Your task to perform on an android device: Open a new private window in the chrome app Image 0: 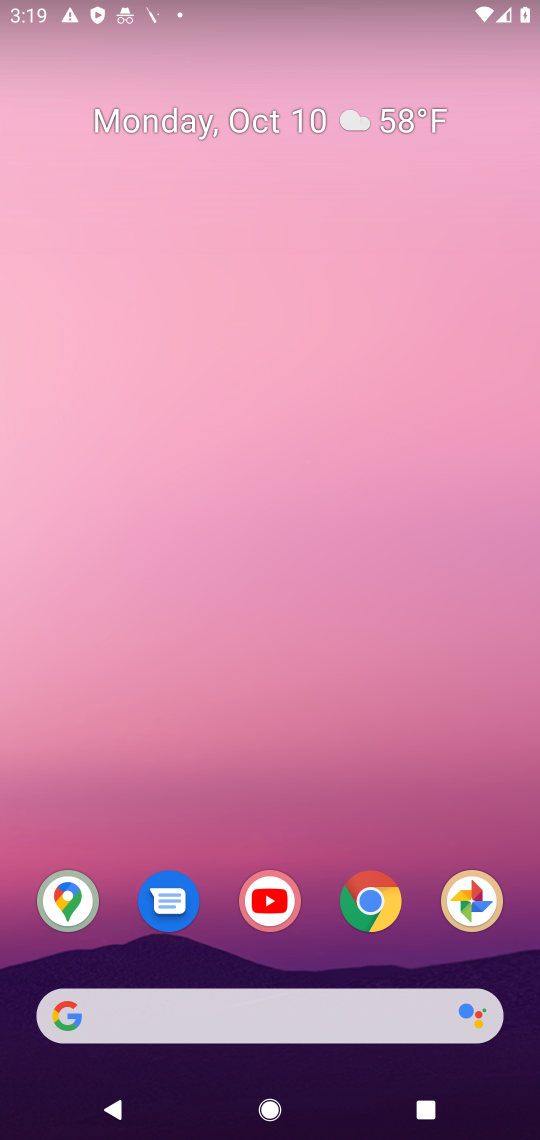
Step 0: drag from (322, 922) to (373, 386)
Your task to perform on an android device: Open a new private window in the chrome app Image 1: 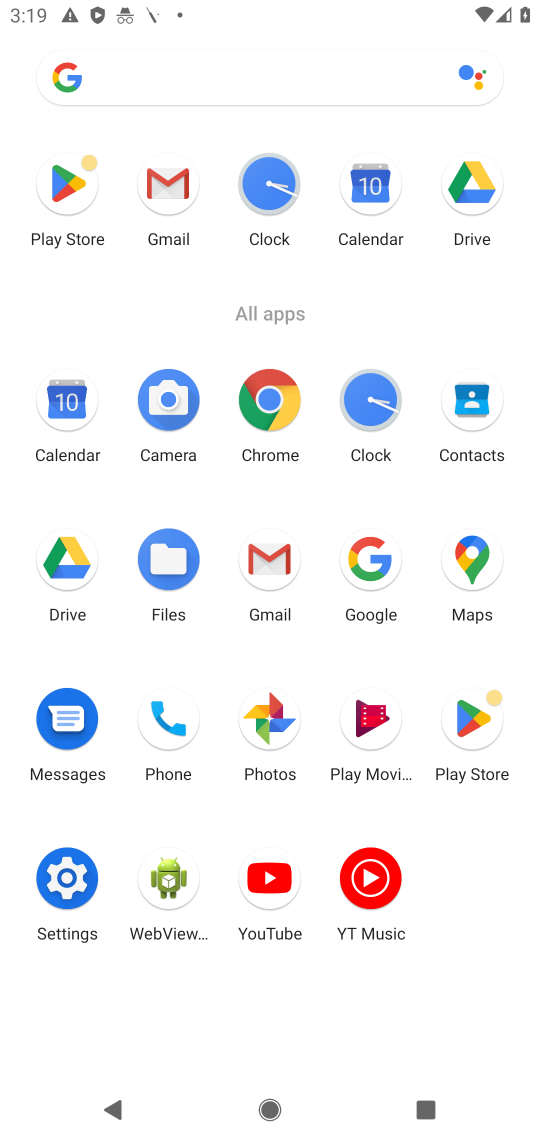
Step 1: click (277, 460)
Your task to perform on an android device: Open a new private window in the chrome app Image 2: 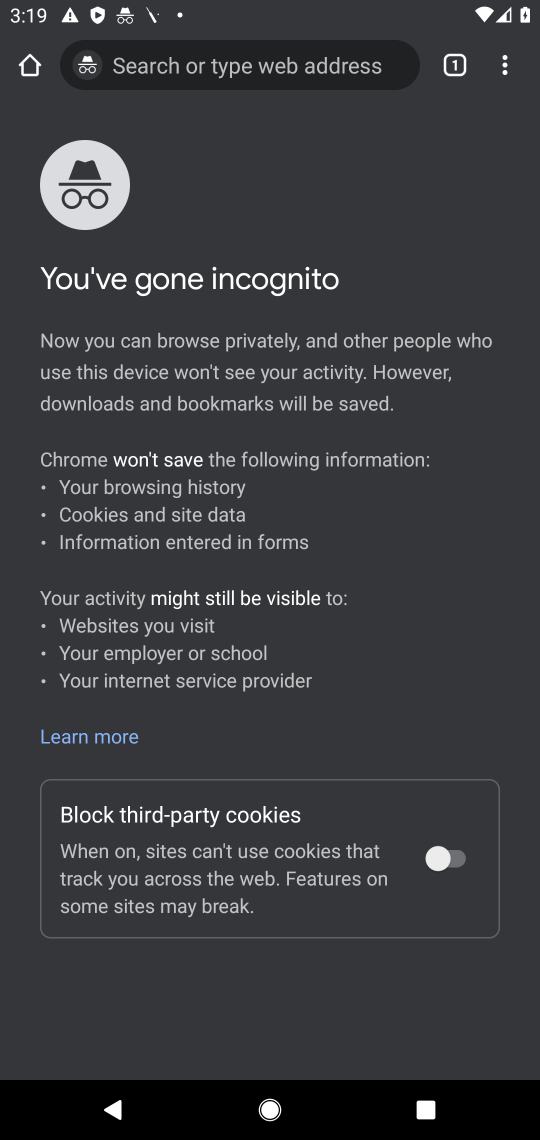
Step 2: click (509, 67)
Your task to perform on an android device: Open a new private window in the chrome app Image 3: 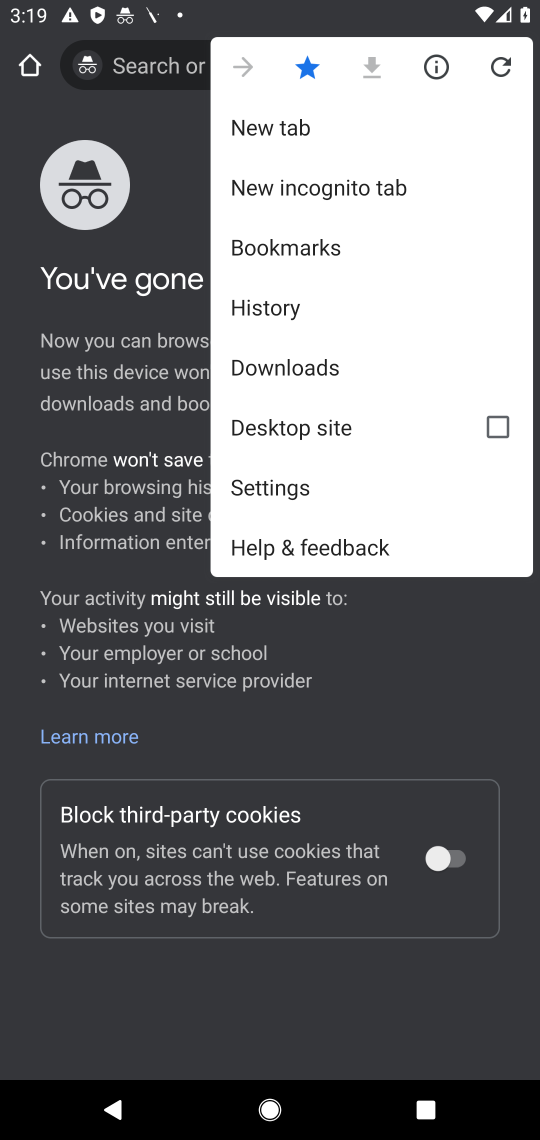
Step 3: click (430, 190)
Your task to perform on an android device: Open a new private window in the chrome app Image 4: 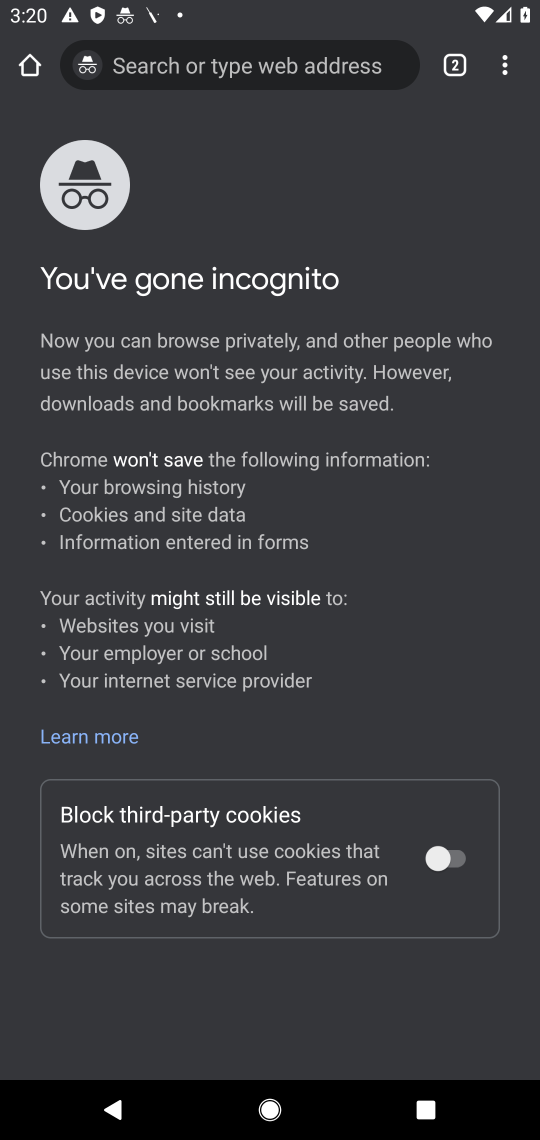
Step 4: task complete